Your task to perform on an android device: delete a single message in the gmail app Image 0: 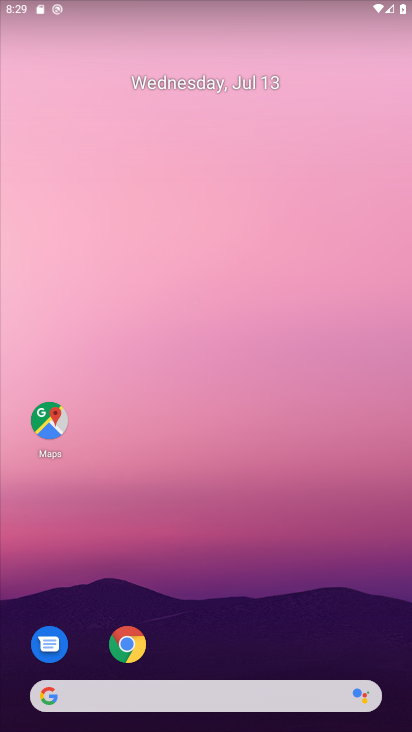
Step 0: drag from (297, 604) to (330, 190)
Your task to perform on an android device: delete a single message in the gmail app Image 1: 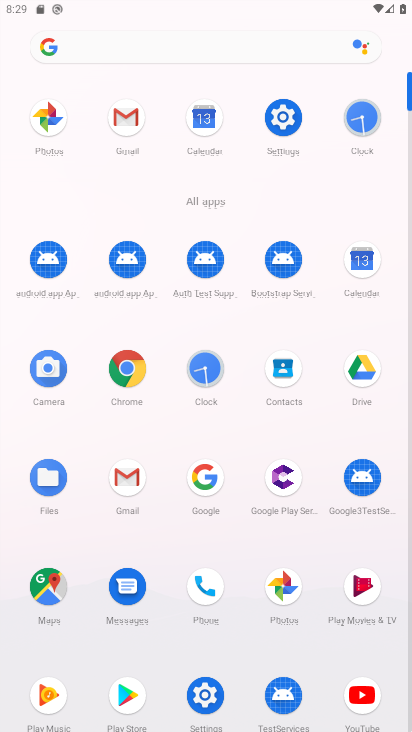
Step 1: click (134, 114)
Your task to perform on an android device: delete a single message in the gmail app Image 2: 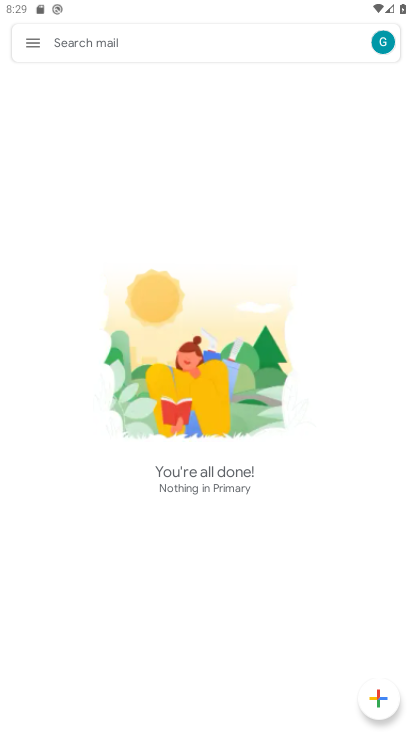
Step 2: click (32, 43)
Your task to perform on an android device: delete a single message in the gmail app Image 3: 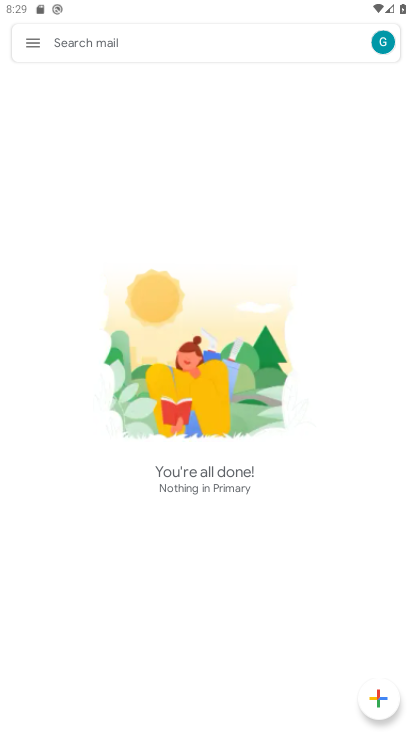
Step 3: click (32, 43)
Your task to perform on an android device: delete a single message in the gmail app Image 4: 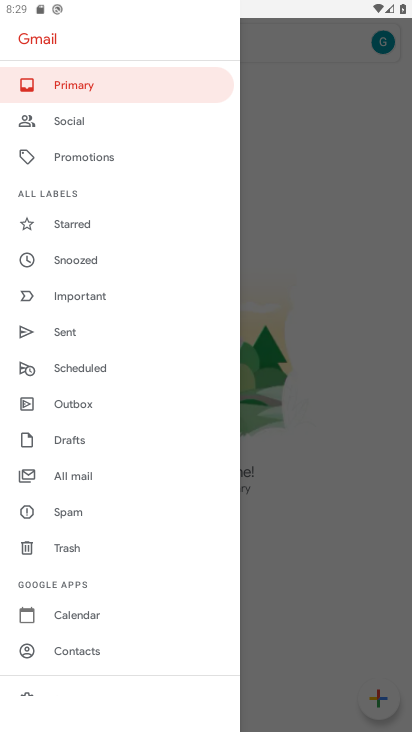
Step 4: click (64, 479)
Your task to perform on an android device: delete a single message in the gmail app Image 5: 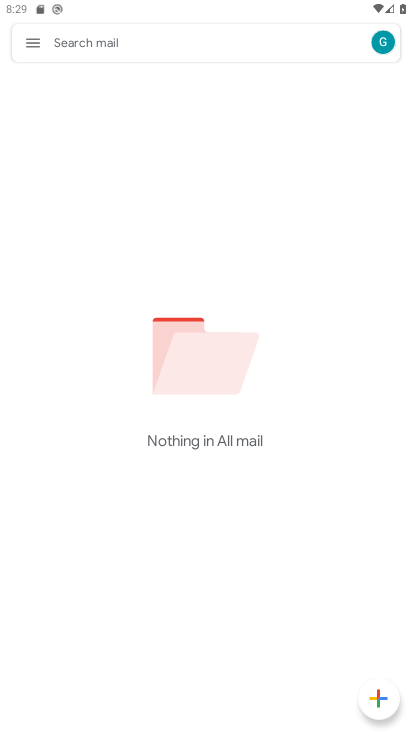
Step 5: task complete